Your task to perform on an android device: toggle airplane mode Image 0: 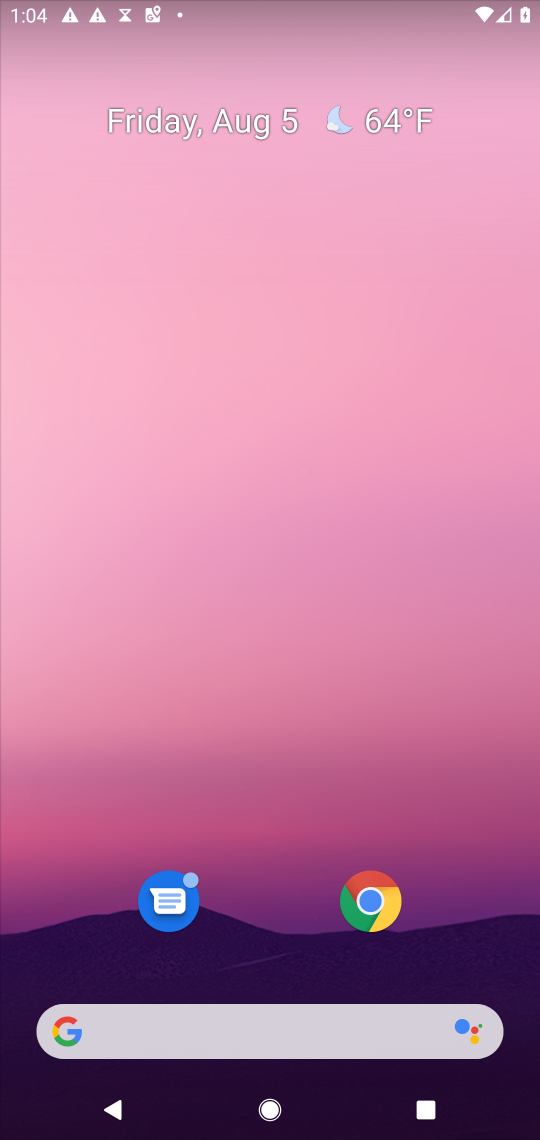
Step 0: drag from (261, 933) to (364, 24)
Your task to perform on an android device: toggle airplane mode Image 1: 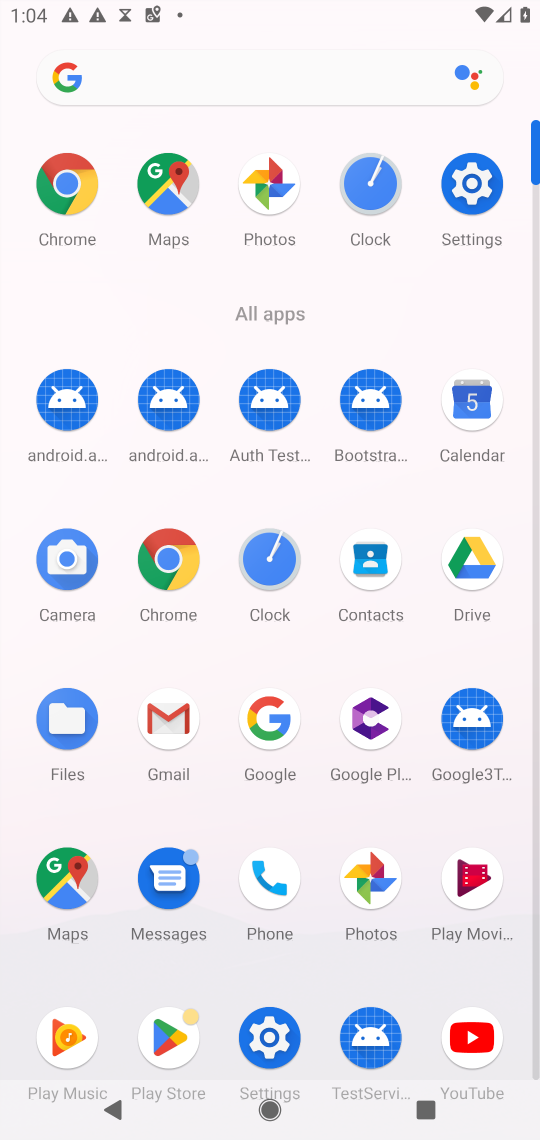
Step 1: click (481, 192)
Your task to perform on an android device: toggle airplane mode Image 2: 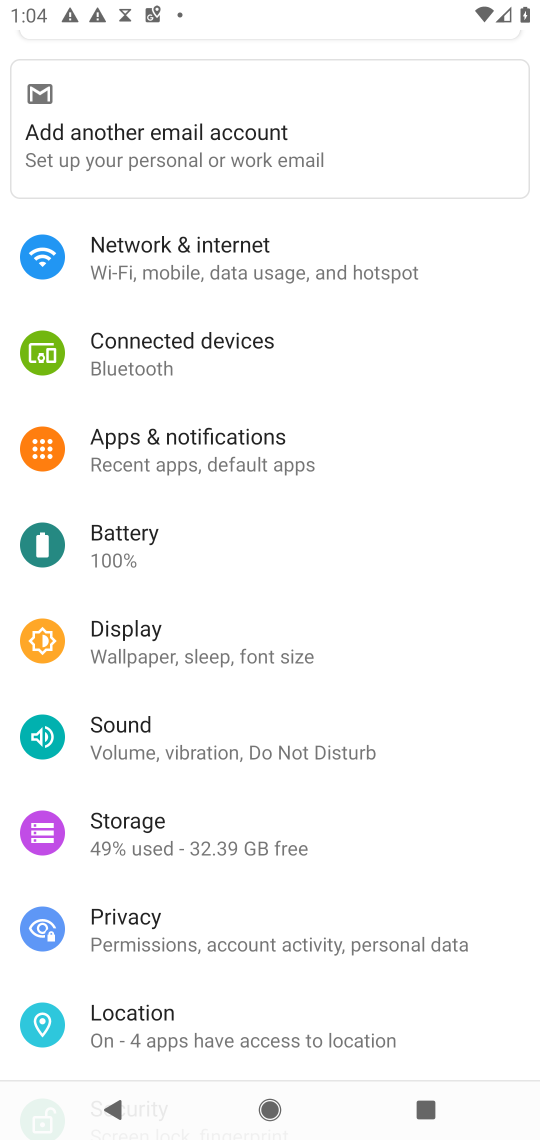
Step 2: click (204, 255)
Your task to perform on an android device: toggle airplane mode Image 3: 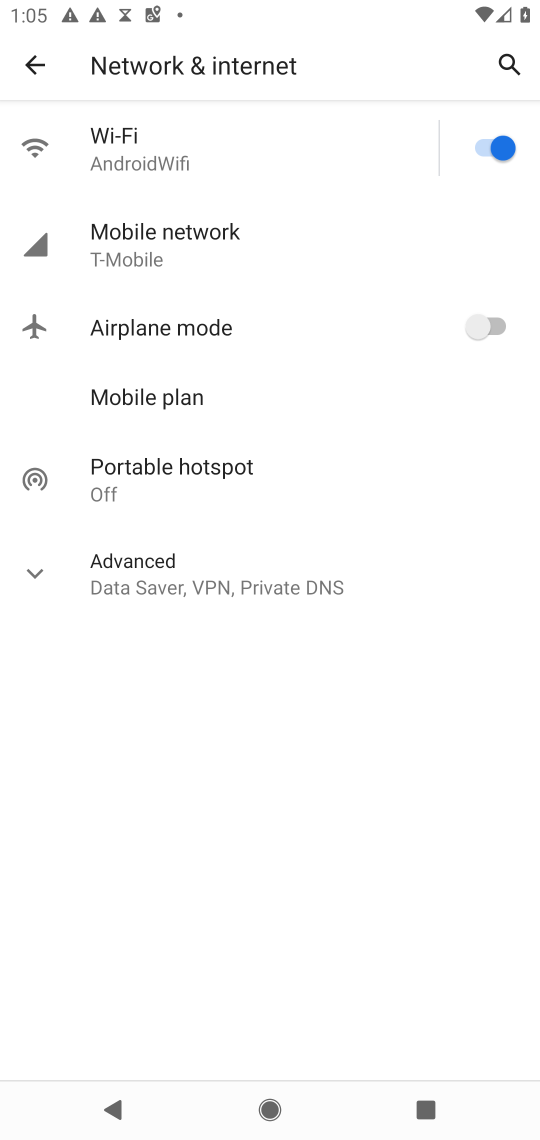
Step 3: click (484, 329)
Your task to perform on an android device: toggle airplane mode Image 4: 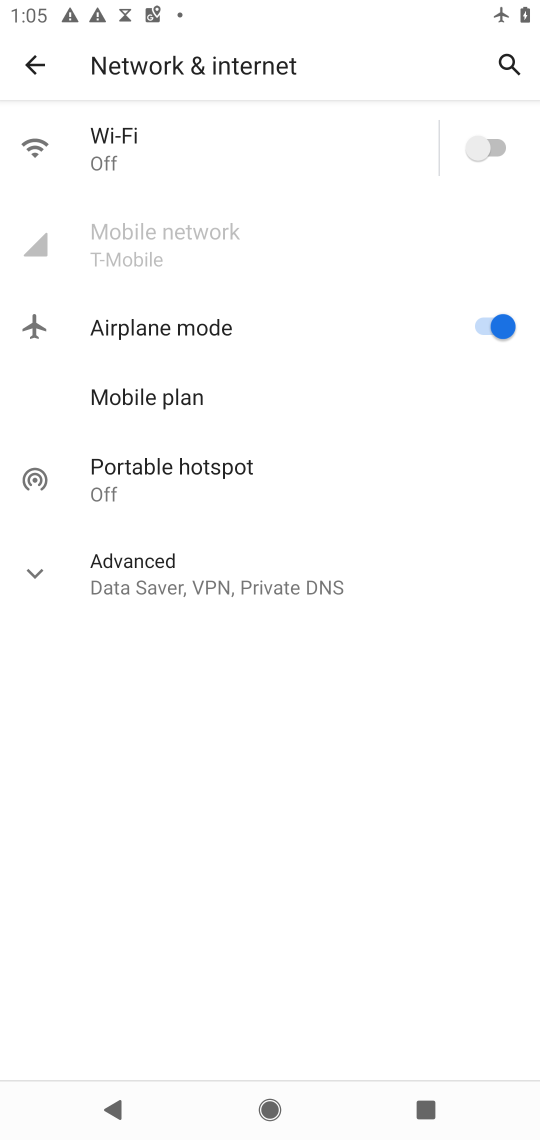
Step 4: task complete